Your task to perform on an android device: open a bookmark in the chrome app Image 0: 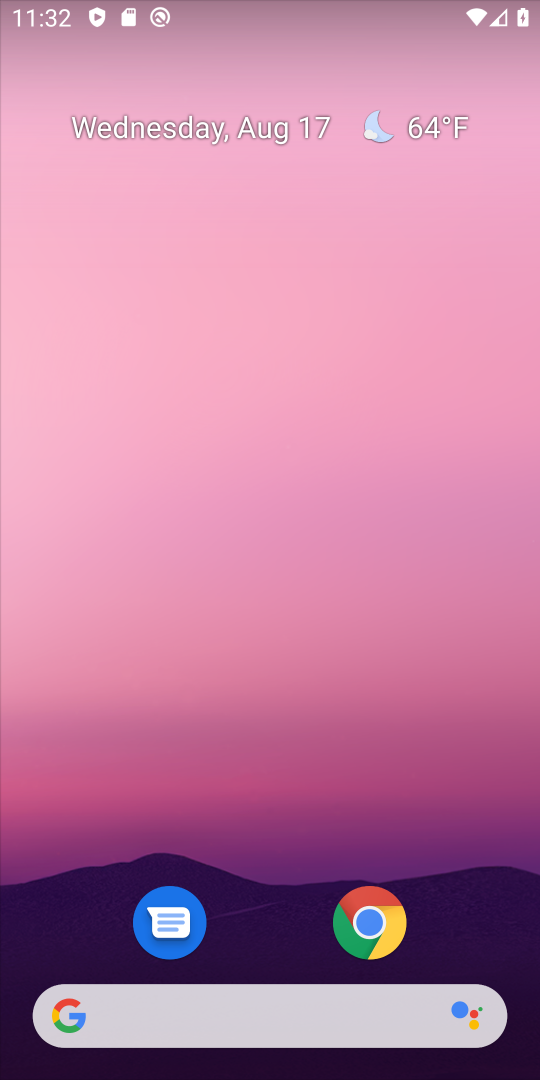
Step 0: click (371, 923)
Your task to perform on an android device: open a bookmark in the chrome app Image 1: 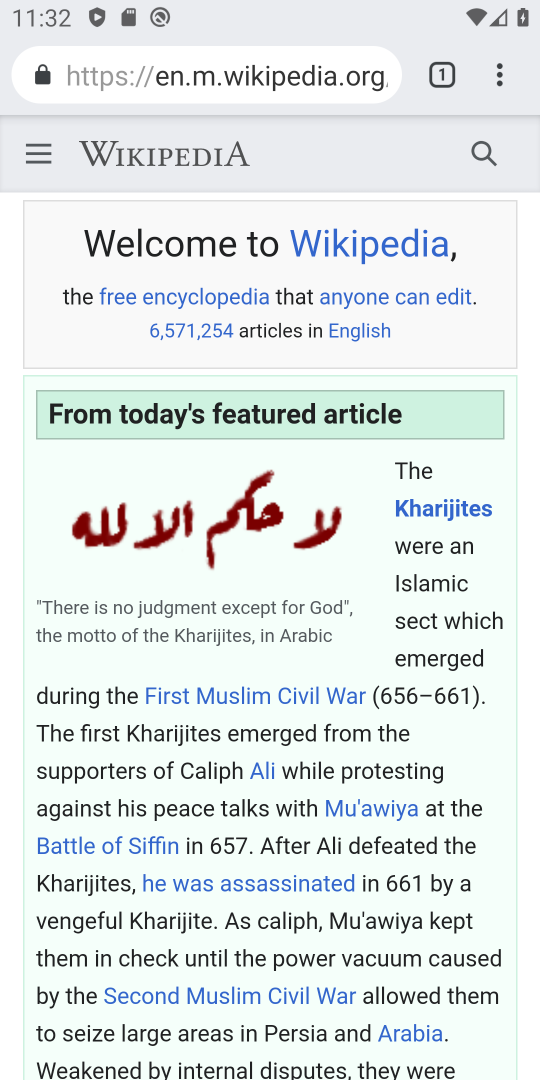
Step 1: click (501, 70)
Your task to perform on an android device: open a bookmark in the chrome app Image 2: 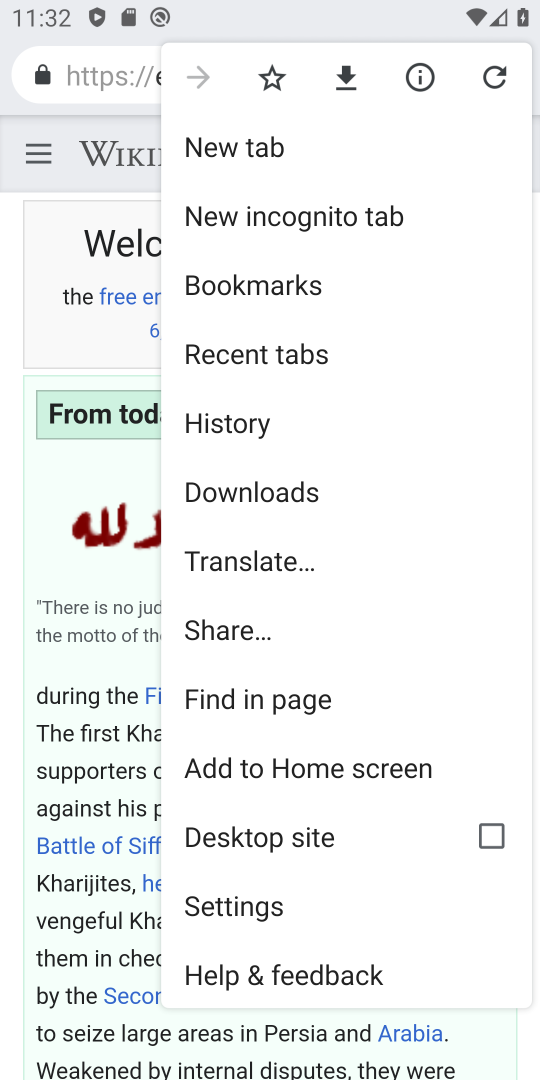
Step 2: click (273, 283)
Your task to perform on an android device: open a bookmark in the chrome app Image 3: 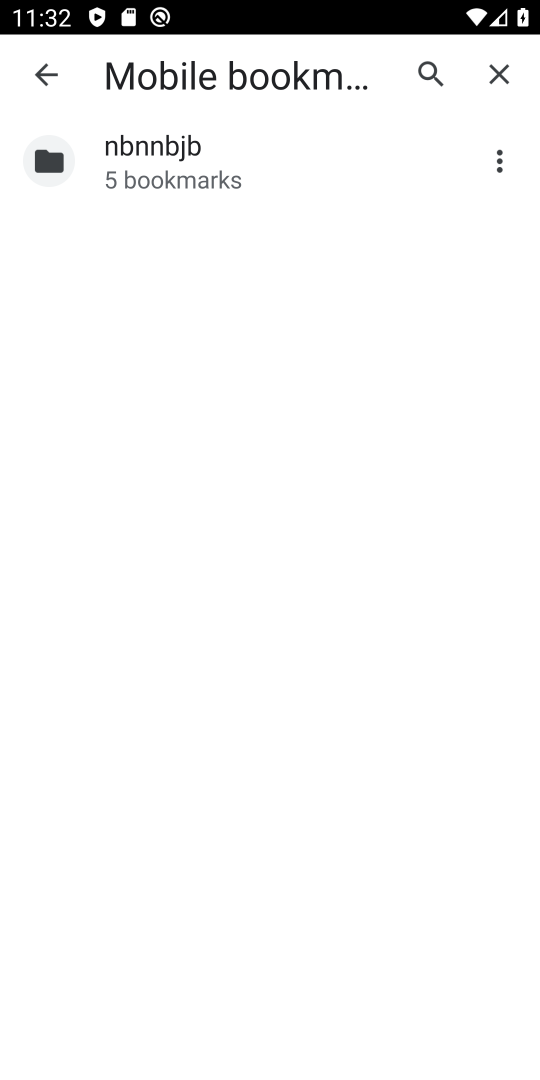
Step 3: task complete